Your task to perform on an android device: Search for bose soundlink on walmart, select the first entry, add it to the cart, then select checkout. Image 0: 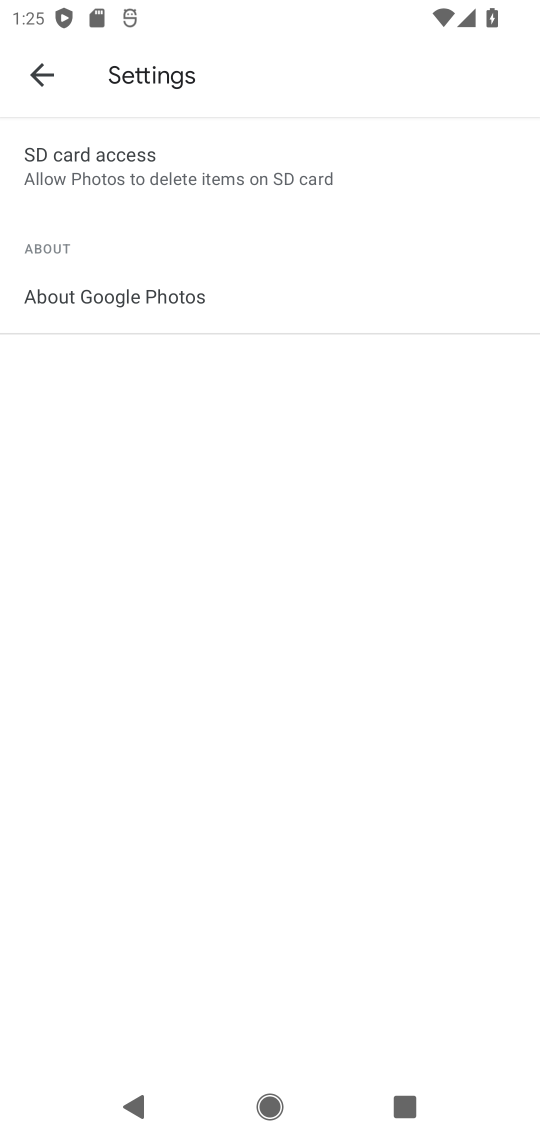
Step 0: press home button
Your task to perform on an android device: Search for bose soundlink on walmart, select the first entry, add it to the cart, then select checkout. Image 1: 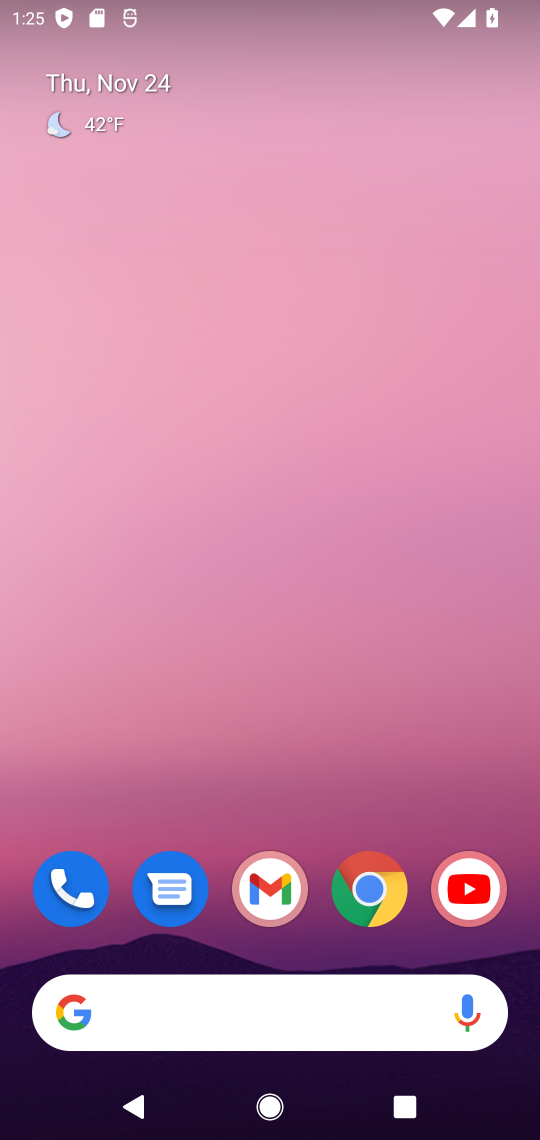
Step 1: click (351, 896)
Your task to perform on an android device: Search for bose soundlink on walmart, select the first entry, add it to the cart, then select checkout. Image 2: 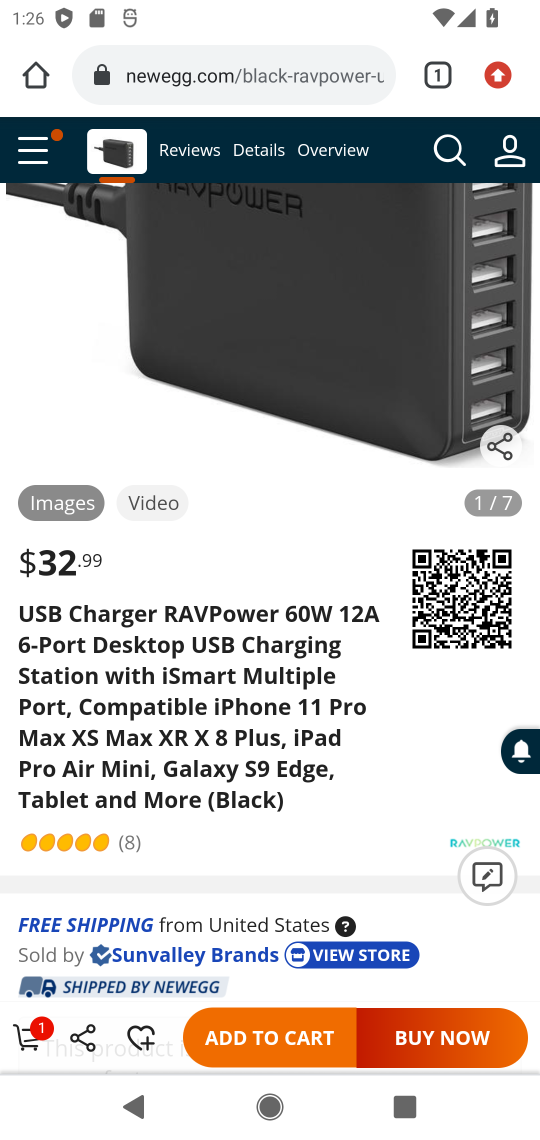
Step 2: click (188, 74)
Your task to perform on an android device: Search for bose soundlink on walmart, select the first entry, add it to the cart, then select checkout. Image 3: 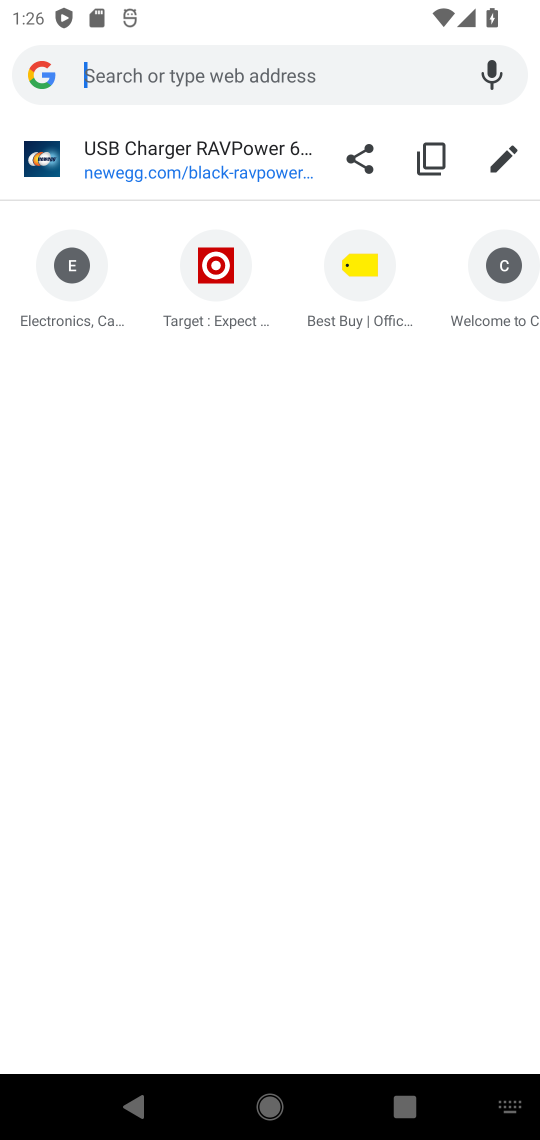
Step 3: type "walmart.com"
Your task to perform on an android device: Search for bose soundlink on walmart, select the first entry, add it to the cart, then select checkout. Image 4: 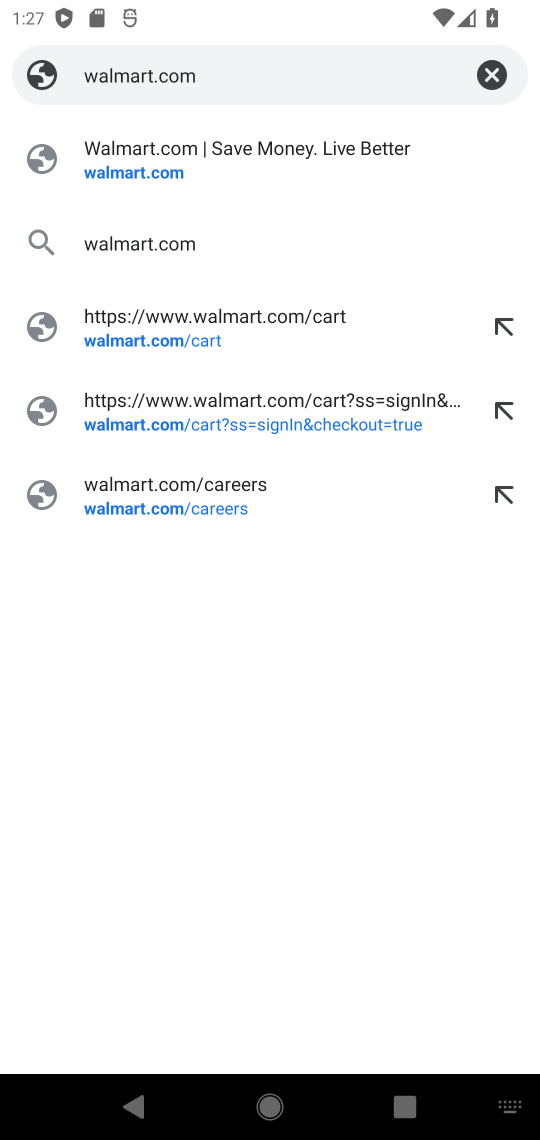
Step 4: click (103, 164)
Your task to perform on an android device: Search for bose soundlink on walmart, select the first entry, add it to the cart, then select checkout. Image 5: 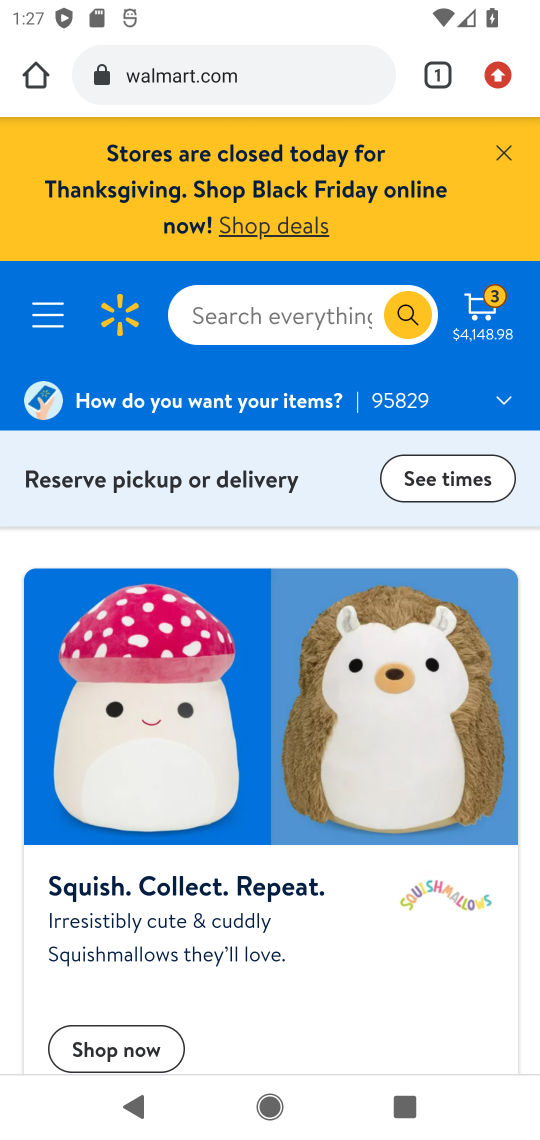
Step 5: click (305, 303)
Your task to perform on an android device: Search for bose soundlink on walmart, select the first entry, add it to the cart, then select checkout. Image 6: 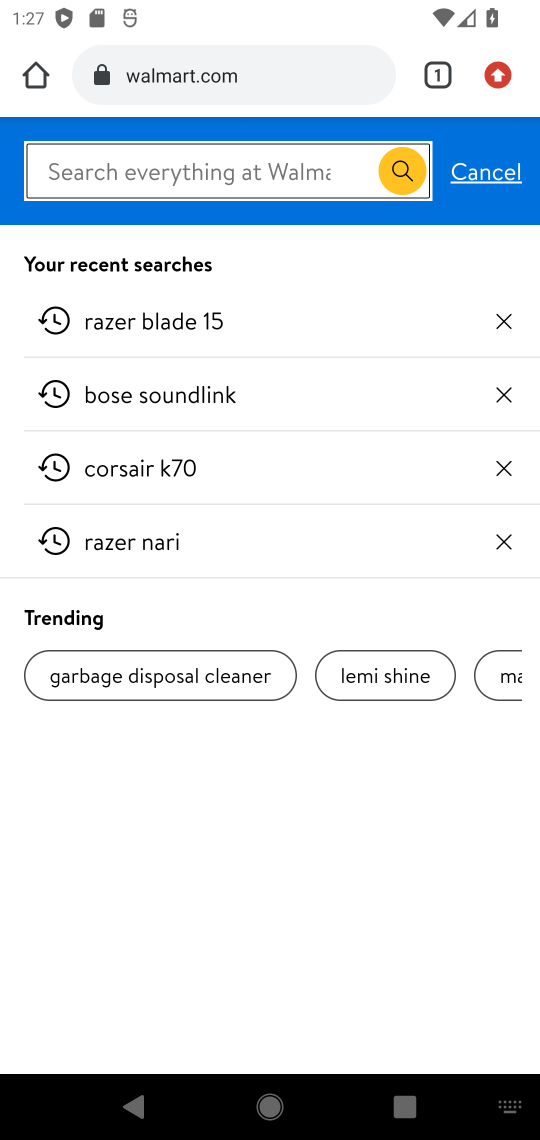
Step 6: type "bose soundlink "
Your task to perform on an android device: Search for bose soundlink on walmart, select the first entry, add it to the cart, then select checkout. Image 7: 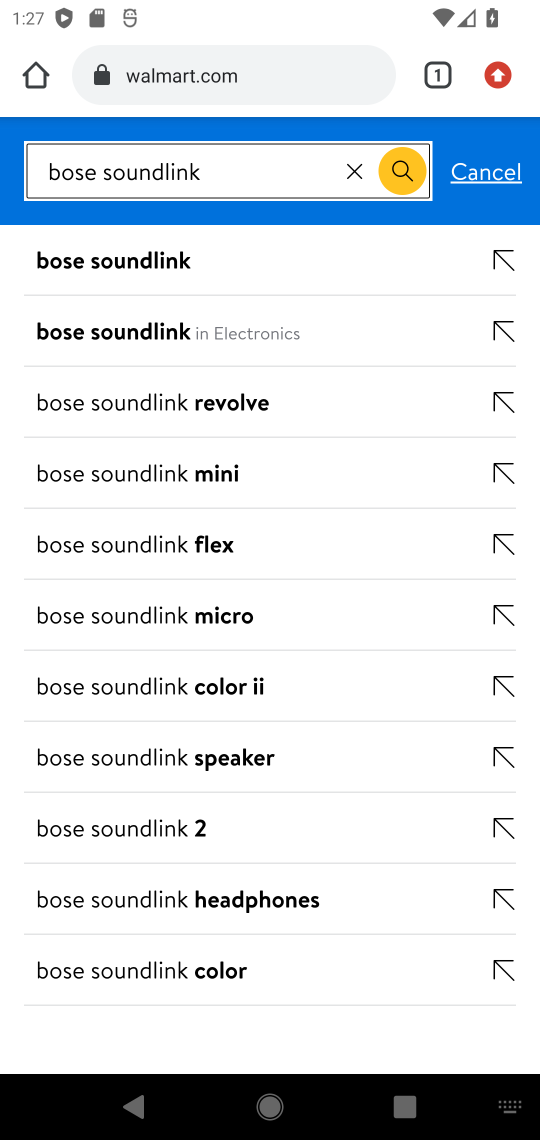
Step 7: click (122, 258)
Your task to perform on an android device: Search for bose soundlink on walmart, select the first entry, add it to the cart, then select checkout. Image 8: 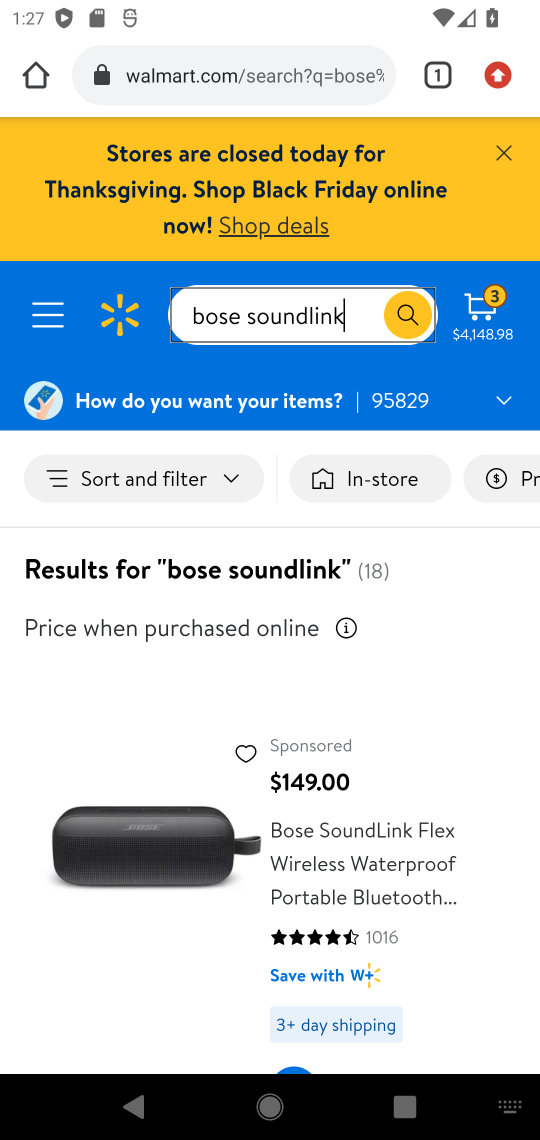
Step 8: drag from (157, 713) to (175, 382)
Your task to perform on an android device: Search for bose soundlink on walmart, select the first entry, add it to the cart, then select checkout. Image 9: 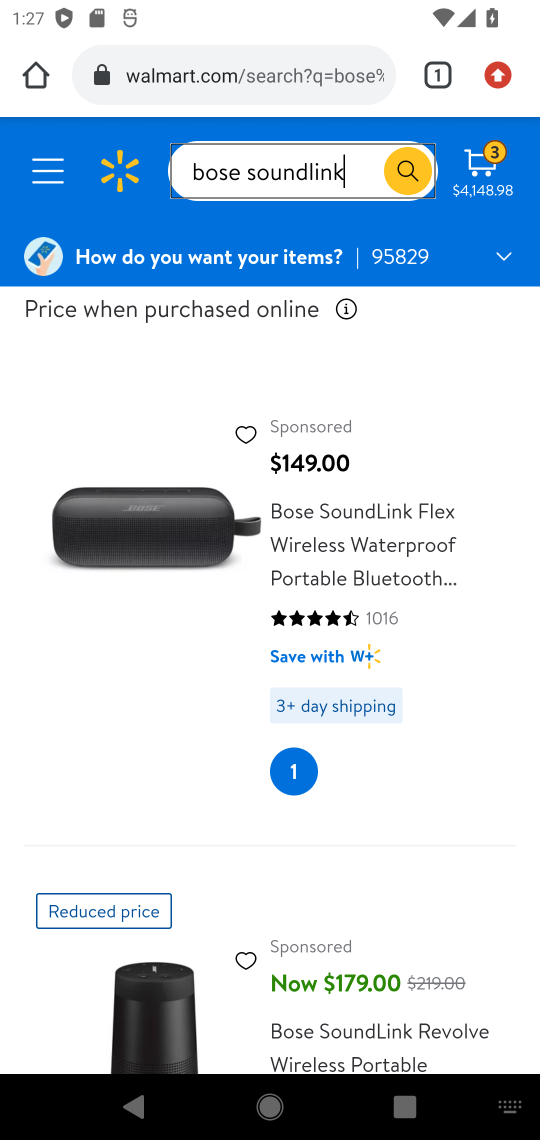
Step 9: click (190, 561)
Your task to perform on an android device: Search for bose soundlink on walmart, select the first entry, add it to the cart, then select checkout. Image 10: 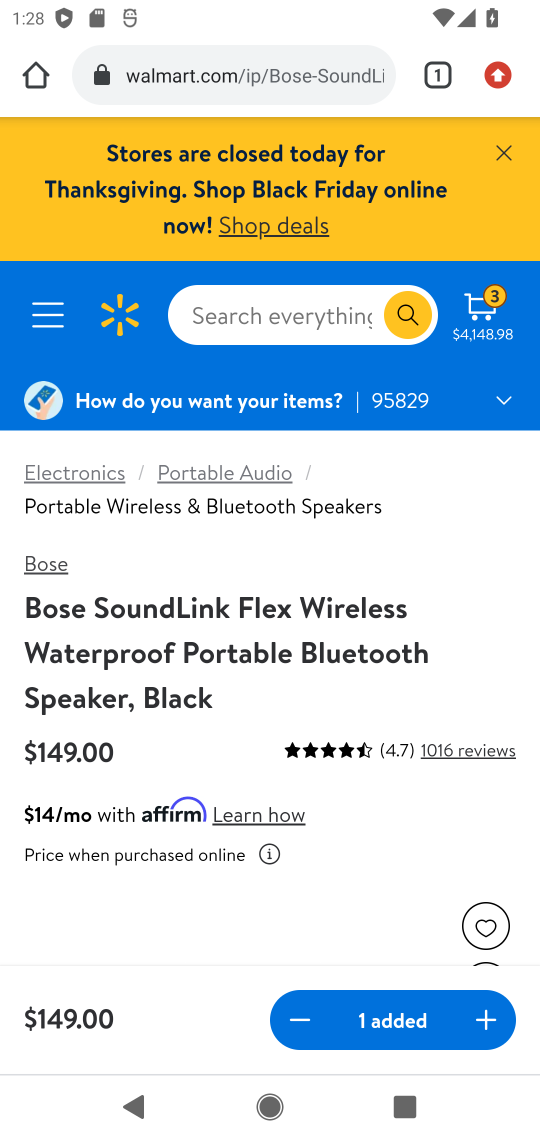
Step 10: click (493, 1025)
Your task to perform on an android device: Search for bose soundlink on walmart, select the first entry, add it to the cart, then select checkout. Image 11: 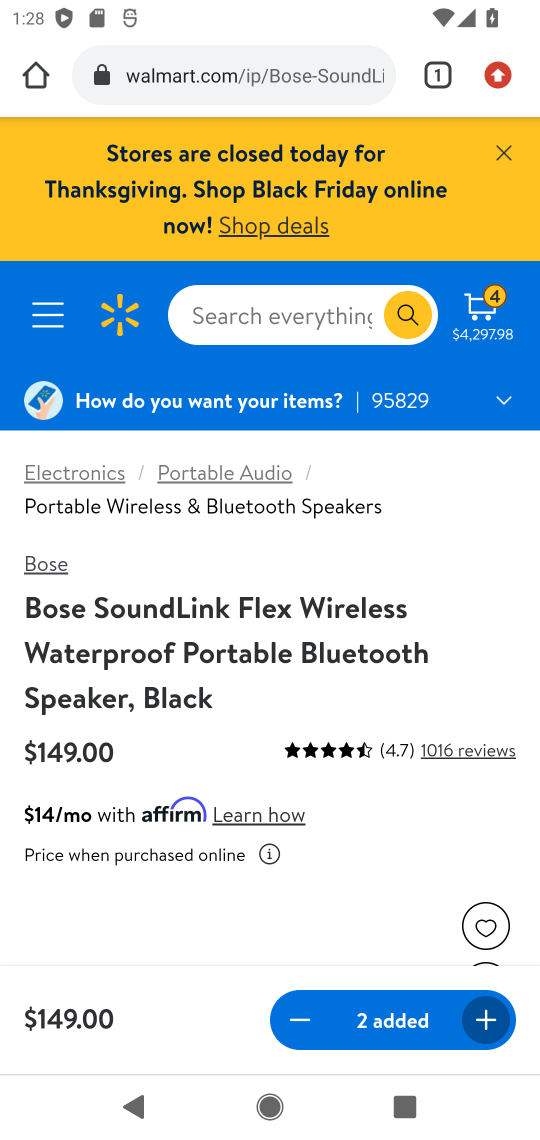
Step 11: click (484, 308)
Your task to perform on an android device: Search for bose soundlink on walmart, select the first entry, add it to the cart, then select checkout. Image 12: 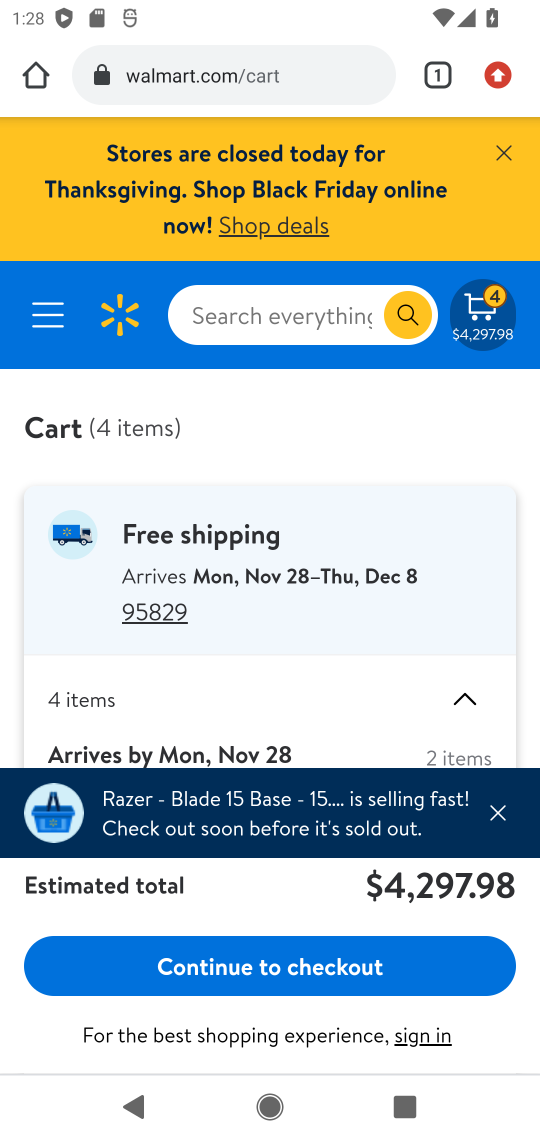
Step 12: click (272, 965)
Your task to perform on an android device: Search for bose soundlink on walmart, select the first entry, add it to the cart, then select checkout. Image 13: 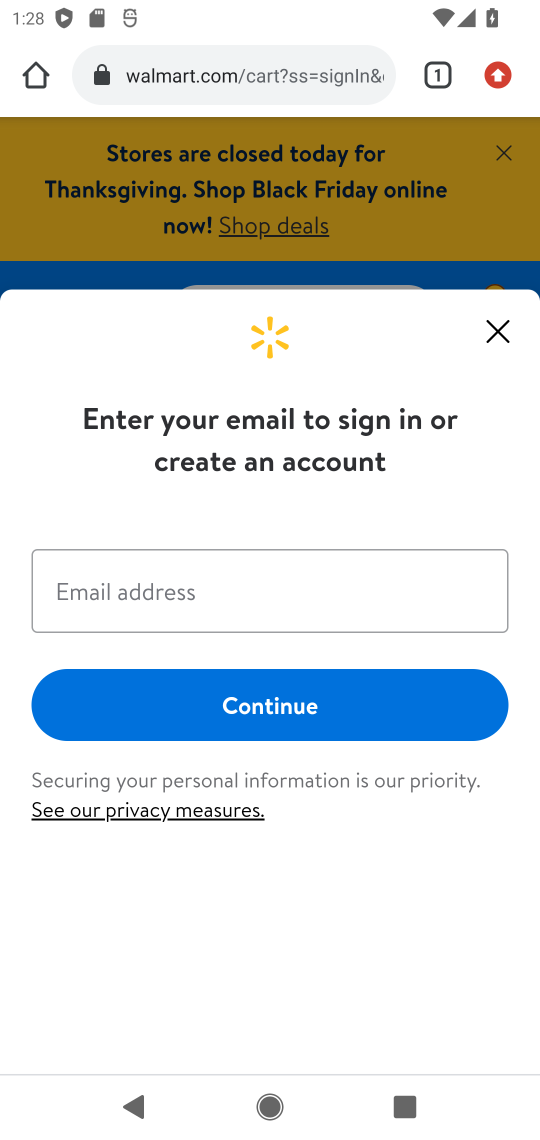
Step 13: task complete